Your task to perform on an android device: turn notification dots on Image 0: 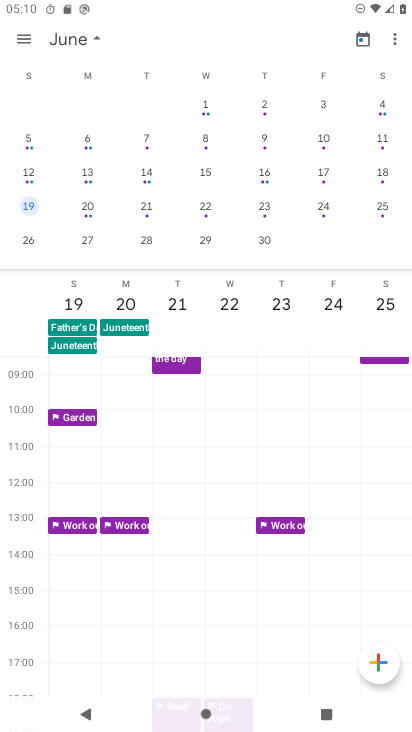
Step 0: press home button
Your task to perform on an android device: turn notification dots on Image 1: 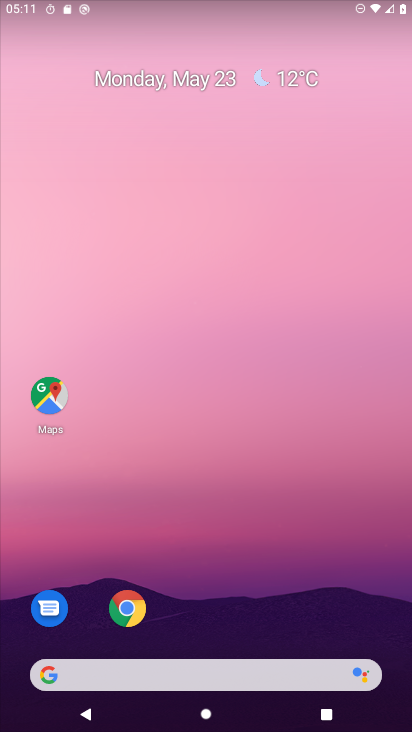
Step 1: drag from (261, 531) to (192, 66)
Your task to perform on an android device: turn notification dots on Image 2: 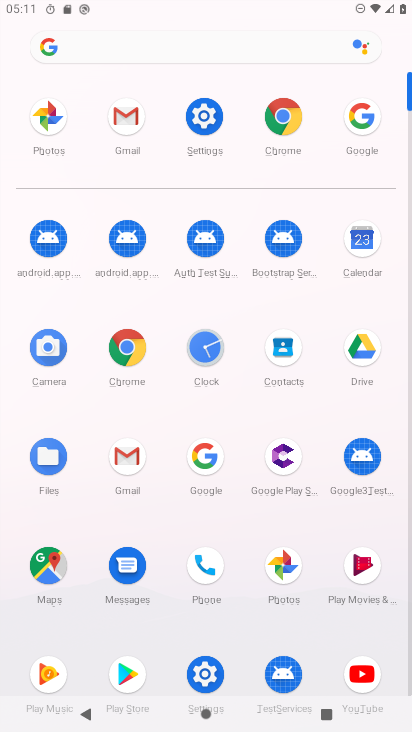
Step 2: click (204, 122)
Your task to perform on an android device: turn notification dots on Image 3: 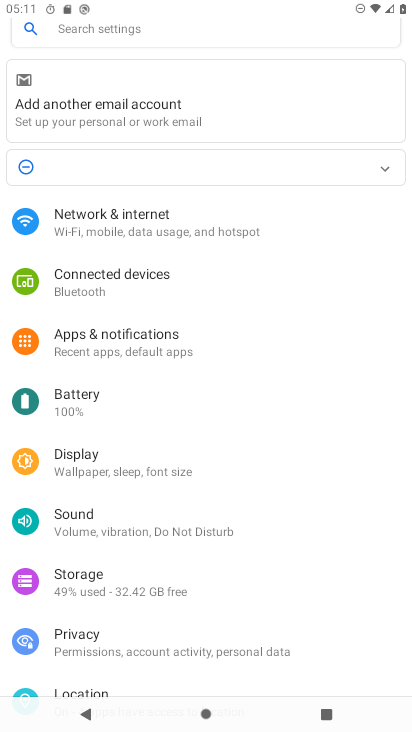
Step 3: click (169, 347)
Your task to perform on an android device: turn notification dots on Image 4: 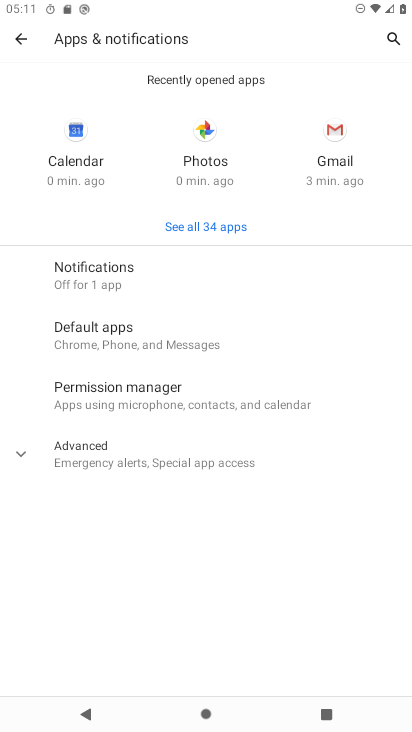
Step 4: click (125, 292)
Your task to perform on an android device: turn notification dots on Image 5: 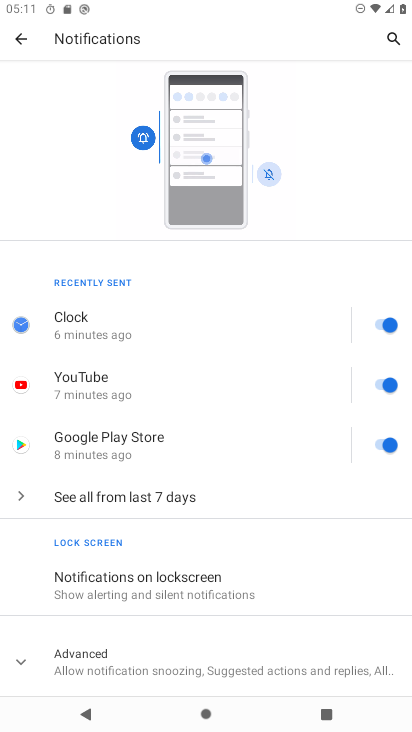
Step 5: click (178, 655)
Your task to perform on an android device: turn notification dots on Image 6: 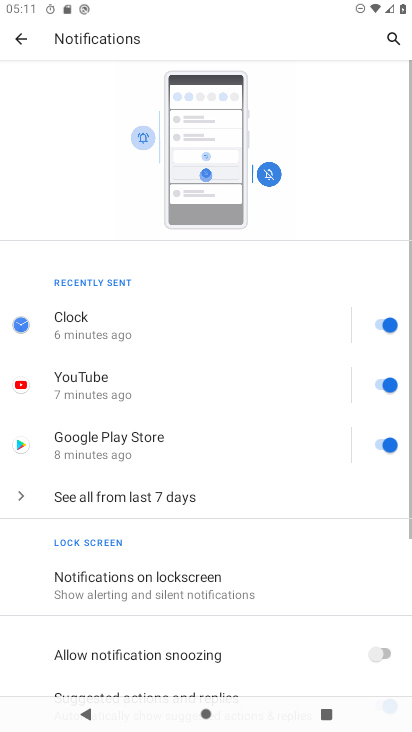
Step 6: task complete